Your task to perform on an android device: Open Google Chrome Image 0: 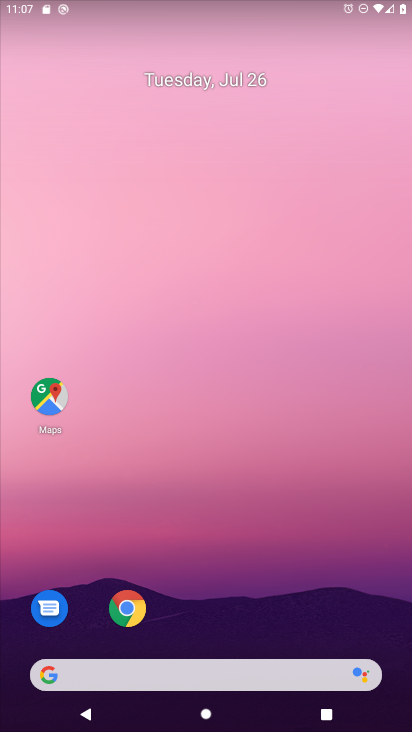
Step 0: drag from (288, 575) to (180, 0)
Your task to perform on an android device: Open Google Chrome Image 1: 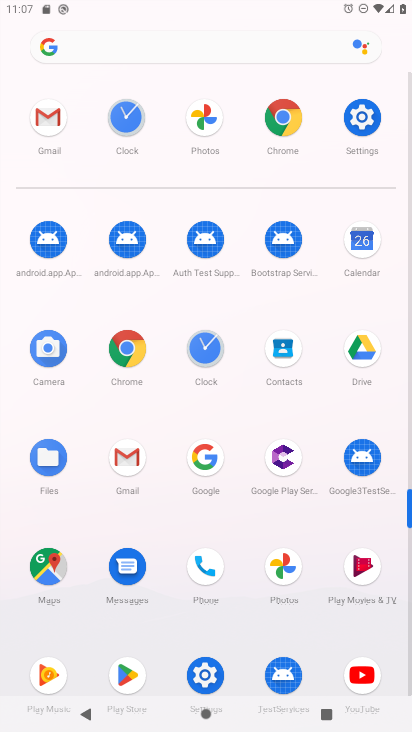
Step 1: click (282, 115)
Your task to perform on an android device: Open Google Chrome Image 2: 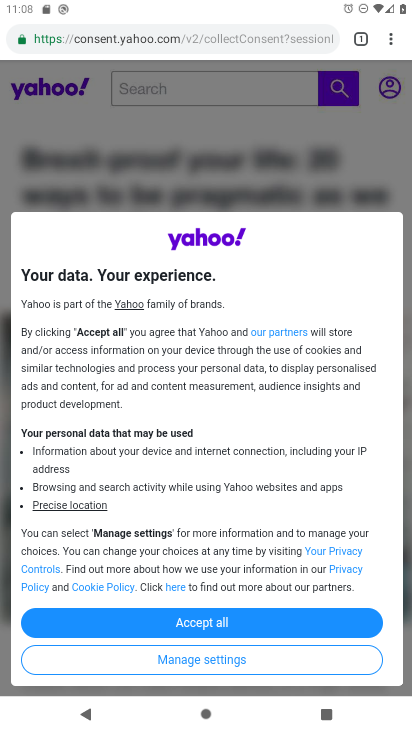
Step 2: task complete